Your task to perform on an android device: check data usage Image 0: 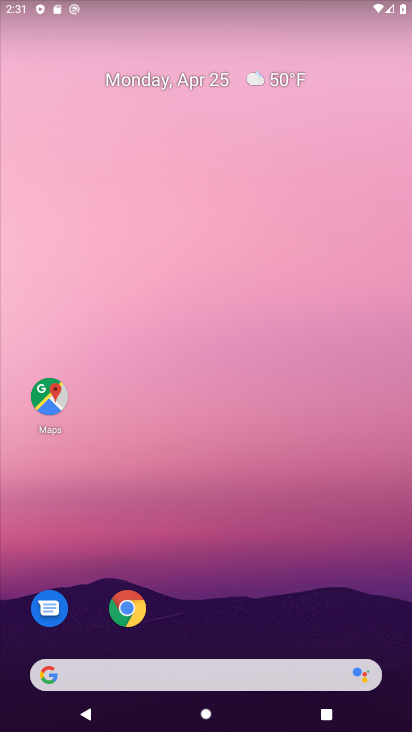
Step 0: click (52, 413)
Your task to perform on an android device: check data usage Image 1: 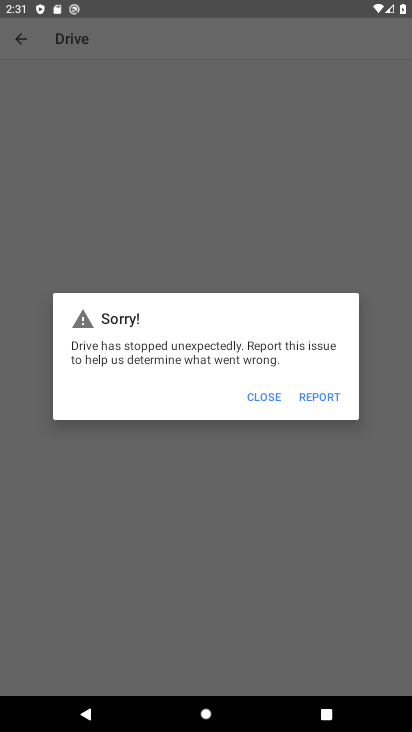
Step 1: press home button
Your task to perform on an android device: check data usage Image 2: 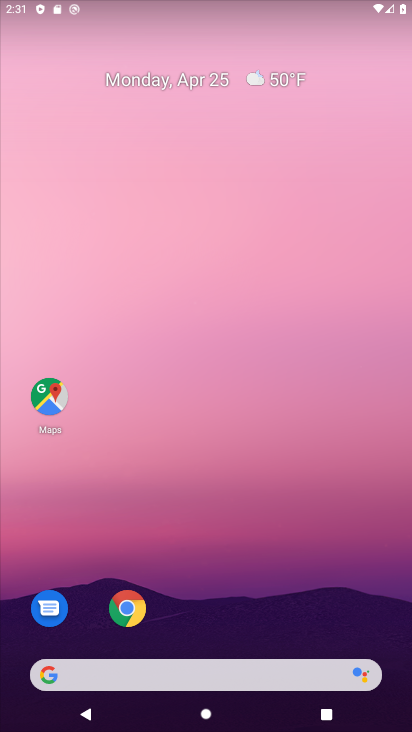
Step 2: drag from (219, 613) to (262, 94)
Your task to perform on an android device: check data usage Image 3: 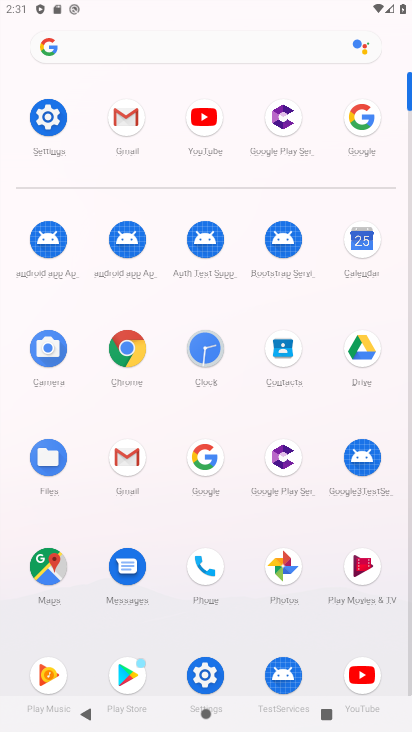
Step 3: click (51, 124)
Your task to perform on an android device: check data usage Image 4: 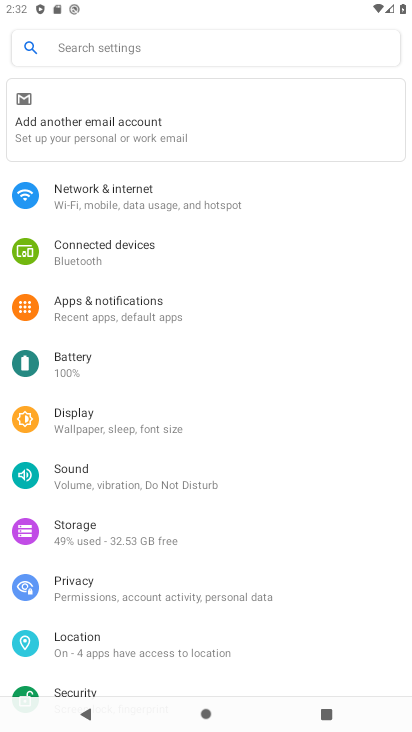
Step 4: click (104, 205)
Your task to perform on an android device: check data usage Image 5: 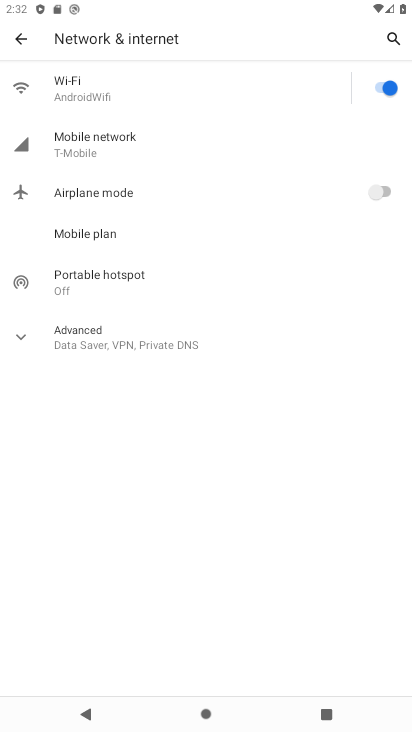
Step 5: click (180, 143)
Your task to perform on an android device: check data usage Image 6: 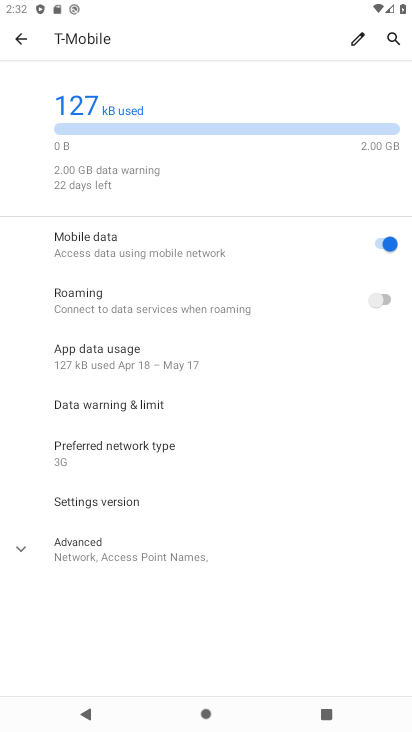
Step 6: click (141, 355)
Your task to perform on an android device: check data usage Image 7: 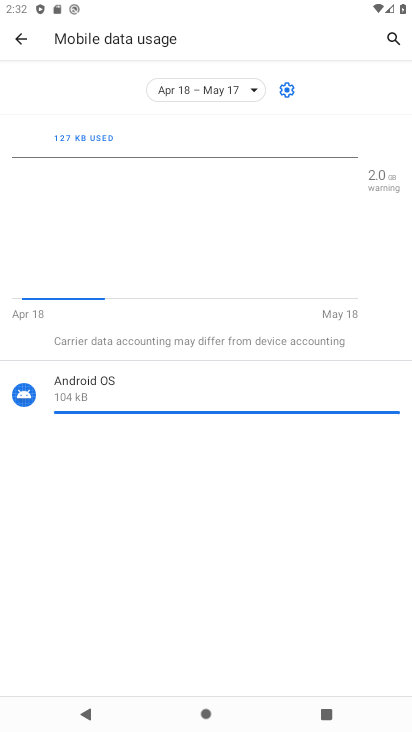
Step 7: task complete